Your task to perform on an android device: Is it going to rain this weekend? Image 0: 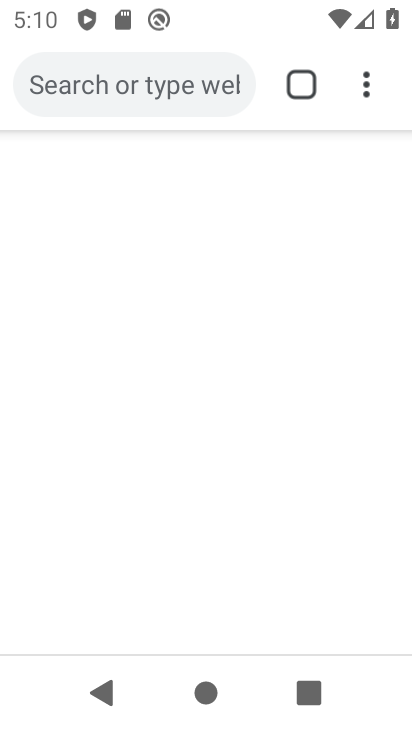
Step 0: click (268, 474)
Your task to perform on an android device: Is it going to rain this weekend? Image 1: 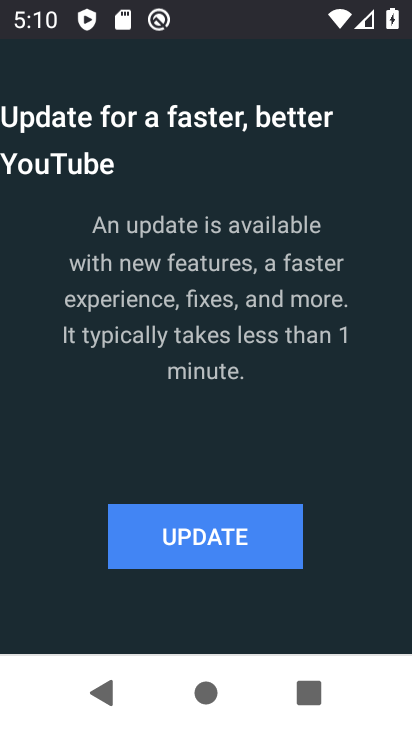
Step 1: press home button
Your task to perform on an android device: Is it going to rain this weekend? Image 2: 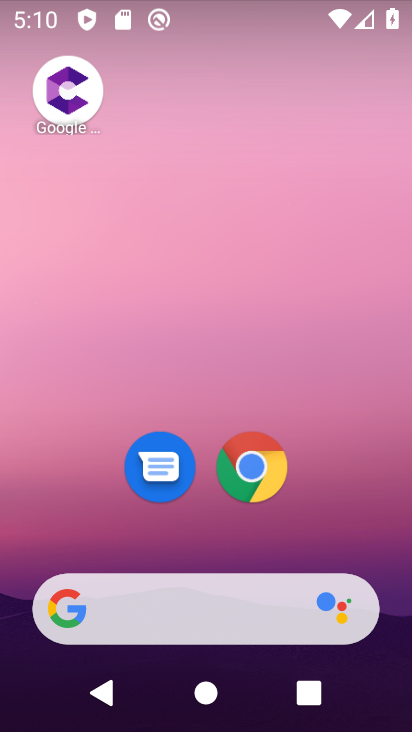
Step 2: click (200, 599)
Your task to perform on an android device: Is it going to rain this weekend? Image 3: 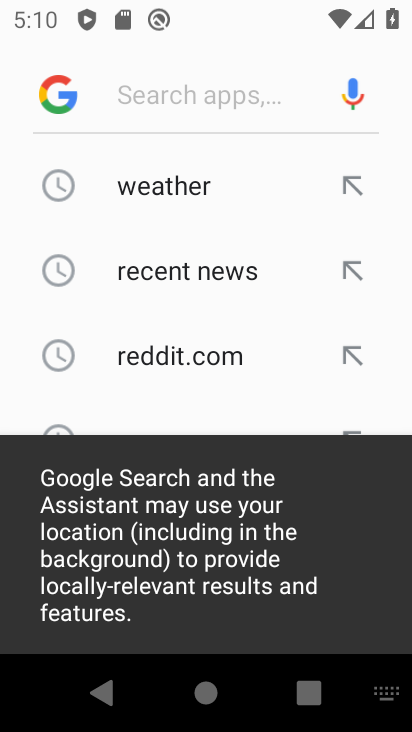
Step 3: click (195, 204)
Your task to perform on an android device: Is it going to rain this weekend? Image 4: 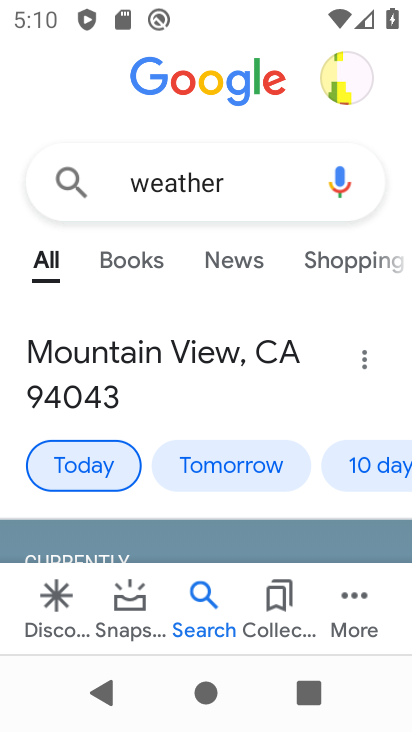
Step 4: click (345, 464)
Your task to perform on an android device: Is it going to rain this weekend? Image 5: 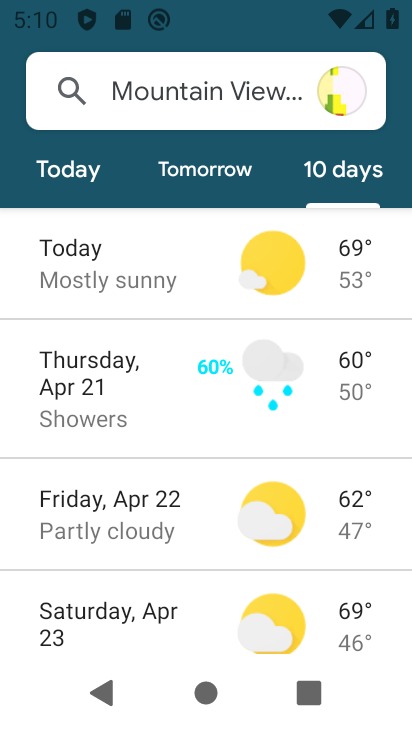
Step 5: task complete